Your task to perform on an android device: Search for vegetarian restaurants on Maps Image 0: 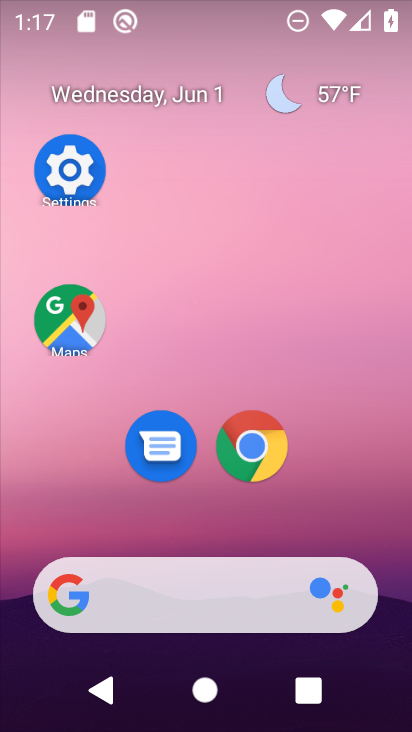
Step 0: click (271, 456)
Your task to perform on an android device: Search for vegetarian restaurants on Maps Image 1: 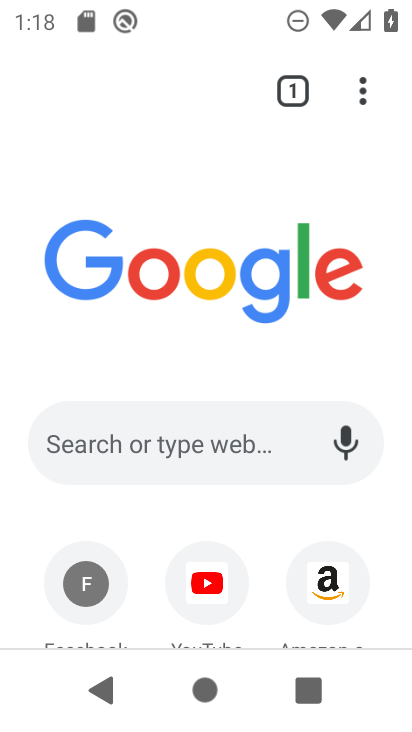
Step 1: press home button
Your task to perform on an android device: Search for vegetarian restaurants on Maps Image 2: 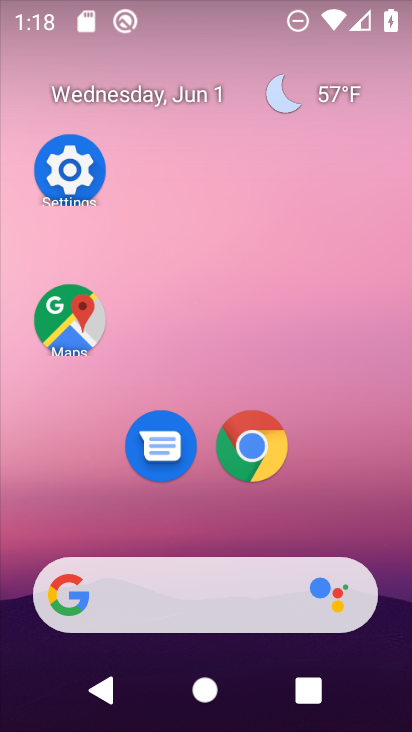
Step 2: click (91, 322)
Your task to perform on an android device: Search for vegetarian restaurants on Maps Image 3: 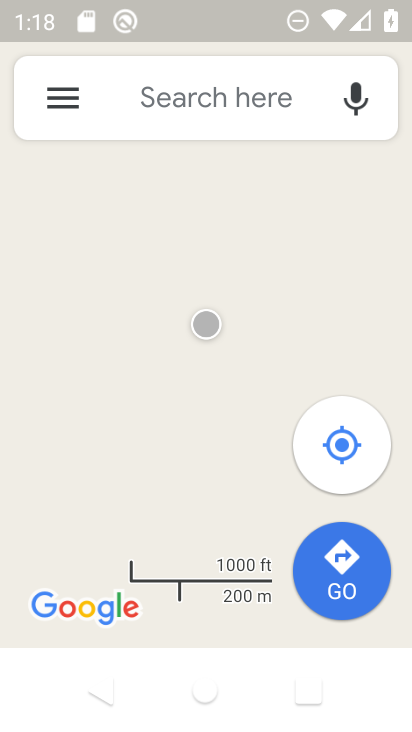
Step 3: click (235, 109)
Your task to perform on an android device: Search for vegetarian restaurants on Maps Image 4: 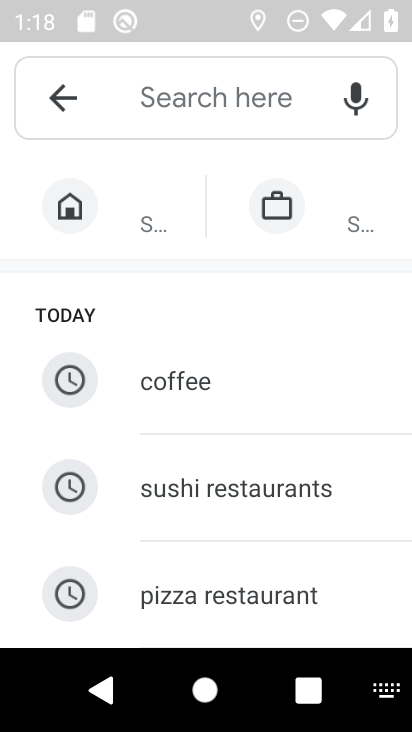
Step 4: type "vegetarian restaurants"
Your task to perform on an android device: Search for vegetarian restaurants on Maps Image 5: 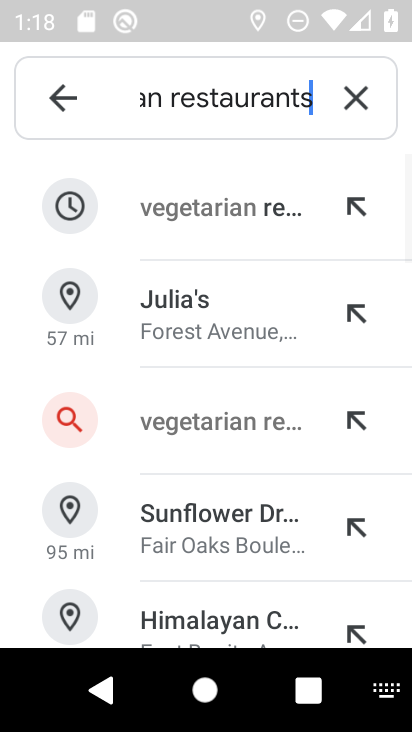
Step 5: click (229, 214)
Your task to perform on an android device: Search for vegetarian restaurants on Maps Image 6: 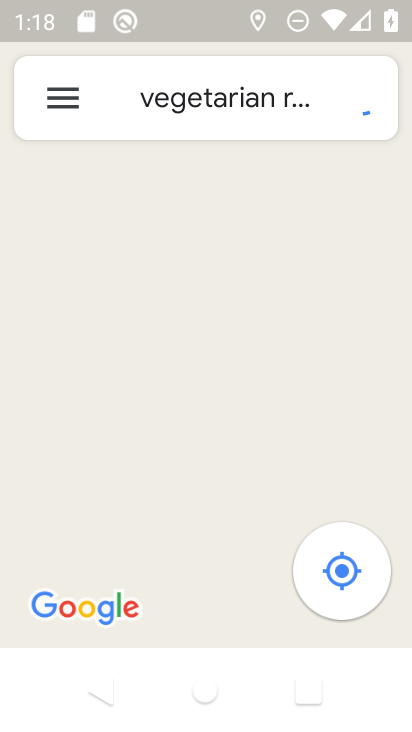
Step 6: task complete